Your task to perform on an android device: turn off priority inbox in the gmail app Image 0: 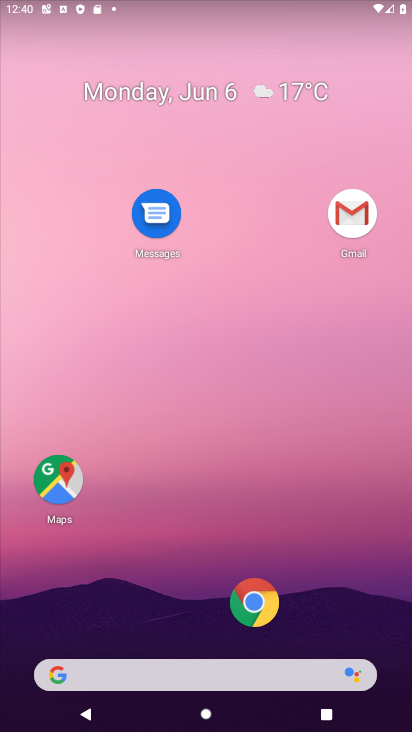
Step 0: drag from (358, 604) to (210, 7)
Your task to perform on an android device: turn off priority inbox in the gmail app Image 1: 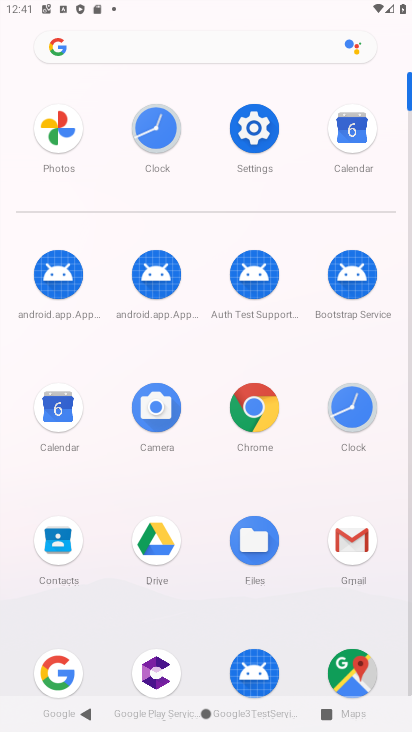
Step 1: click (350, 557)
Your task to perform on an android device: turn off priority inbox in the gmail app Image 2: 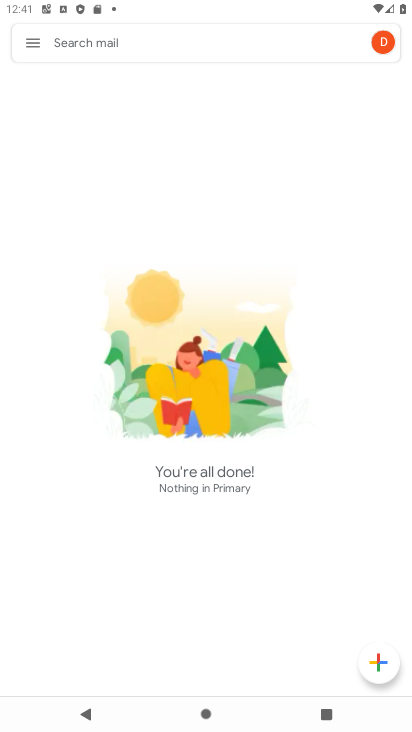
Step 2: click (44, 49)
Your task to perform on an android device: turn off priority inbox in the gmail app Image 3: 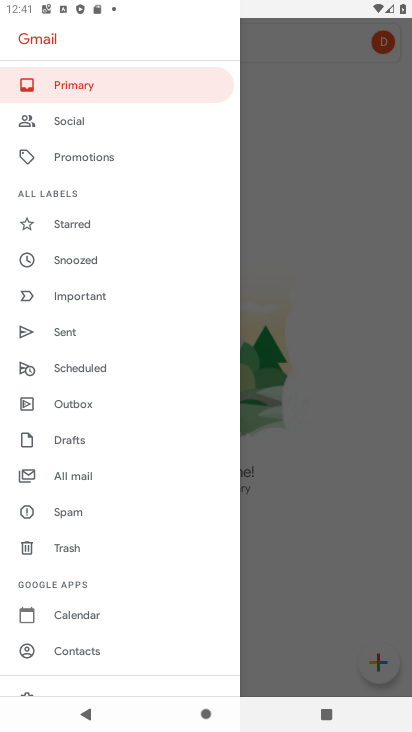
Step 3: drag from (98, 639) to (86, 416)
Your task to perform on an android device: turn off priority inbox in the gmail app Image 4: 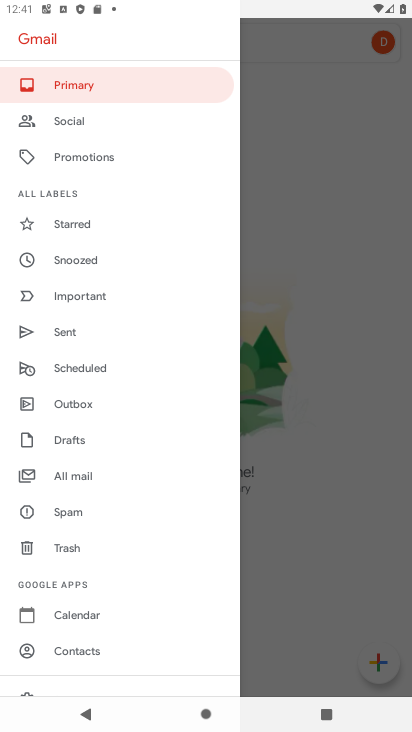
Step 4: drag from (138, 629) to (168, 502)
Your task to perform on an android device: turn off priority inbox in the gmail app Image 5: 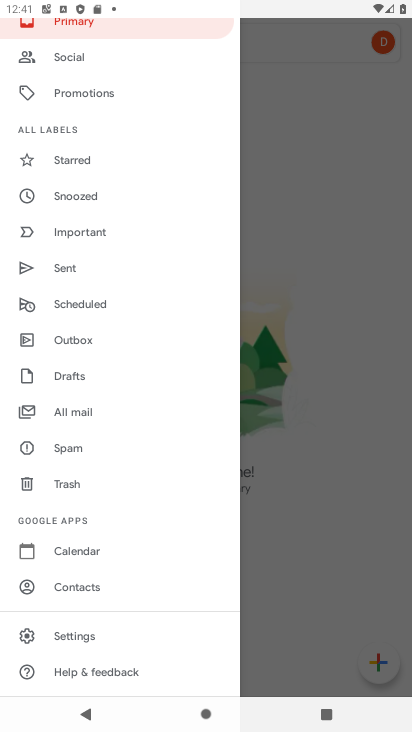
Step 5: click (112, 627)
Your task to perform on an android device: turn off priority inbox in the gmail app Image 6: 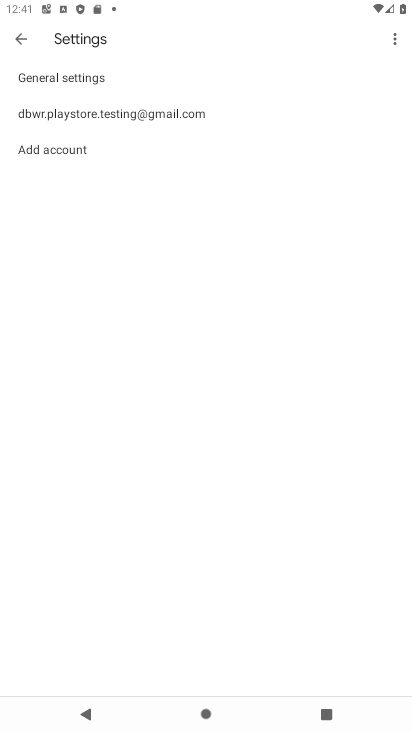
Step 6: click (76, 108)
Your task to perform on an android device: turn off priority inbox in the gmail app Image 7: 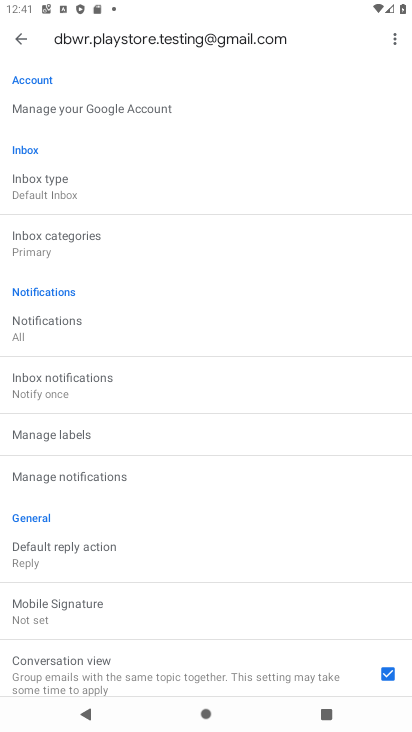
Step 7: task complete